Your task to perform on an android device: empty trash in google photos Image 0: 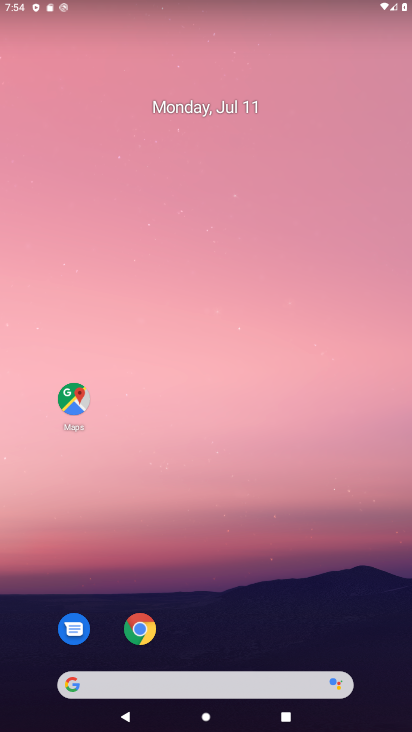
Step 0: drag from (200, 641) to (269, 161)
Your task to perform on an android device: empty trash in google photos Image 1: 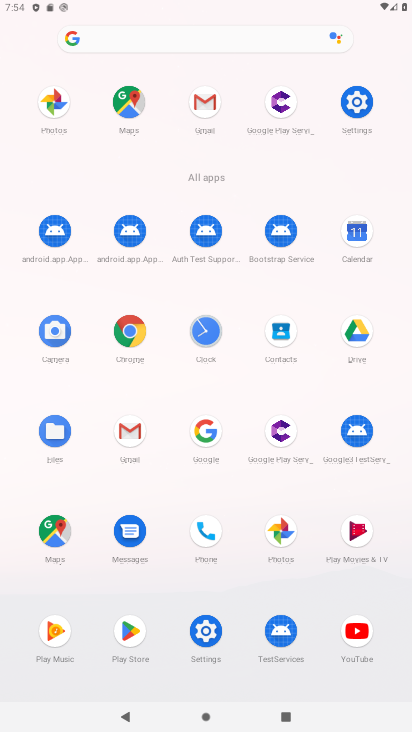
Step 1: click (282, 536)
Your task to perform on an android device: empty trash in google photos Image 2: 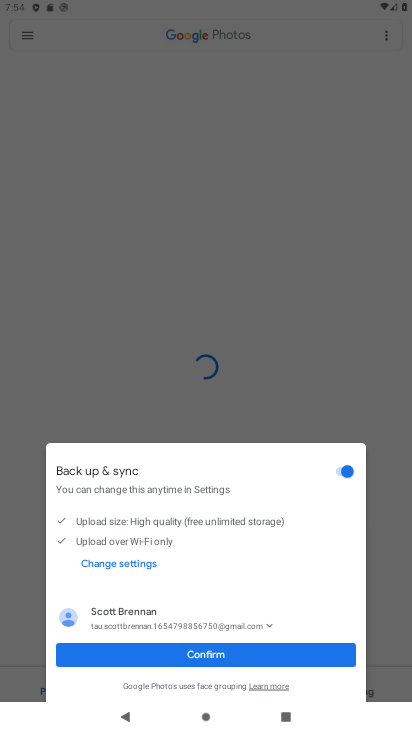
Step 2: click (199, 659)
Your task to perform on an android device: empty trash in google photos Image 3: 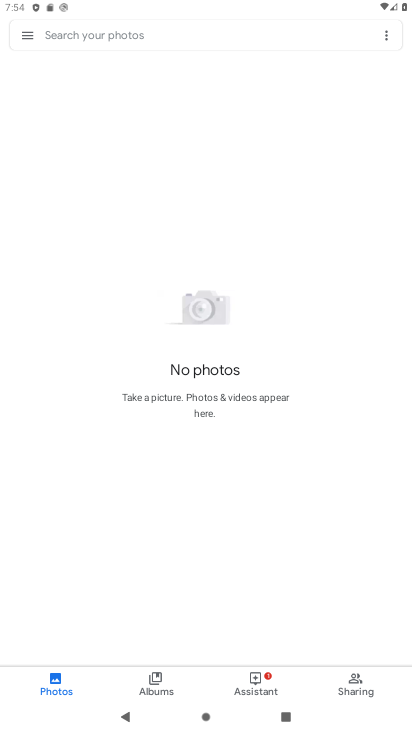
Step 3: click (23, 35)
Your task to perform on an android device: empty trash in google photos Image 4: 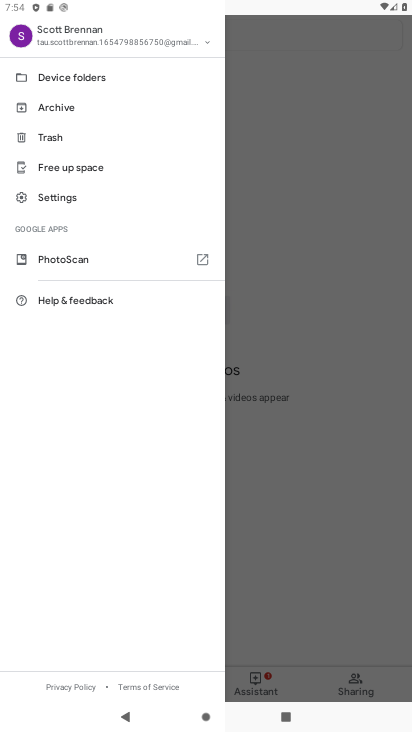
Step 4: click (76, 142)
Your task to perform on an android device: empty trash in google photos Image 5: 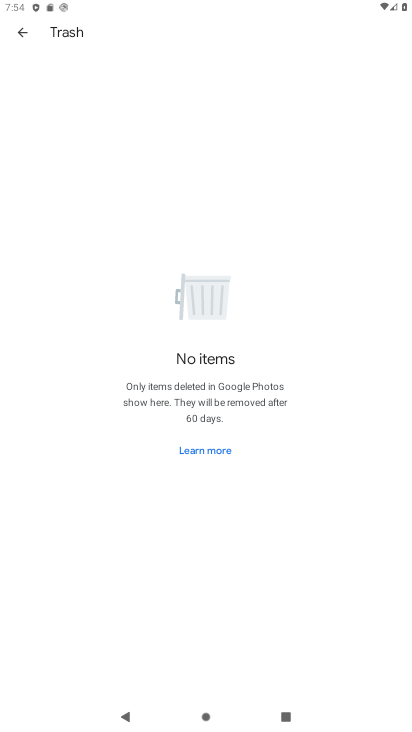
Step 5: task complete